Your task to perform on an android device: Go to Maps Image 0: 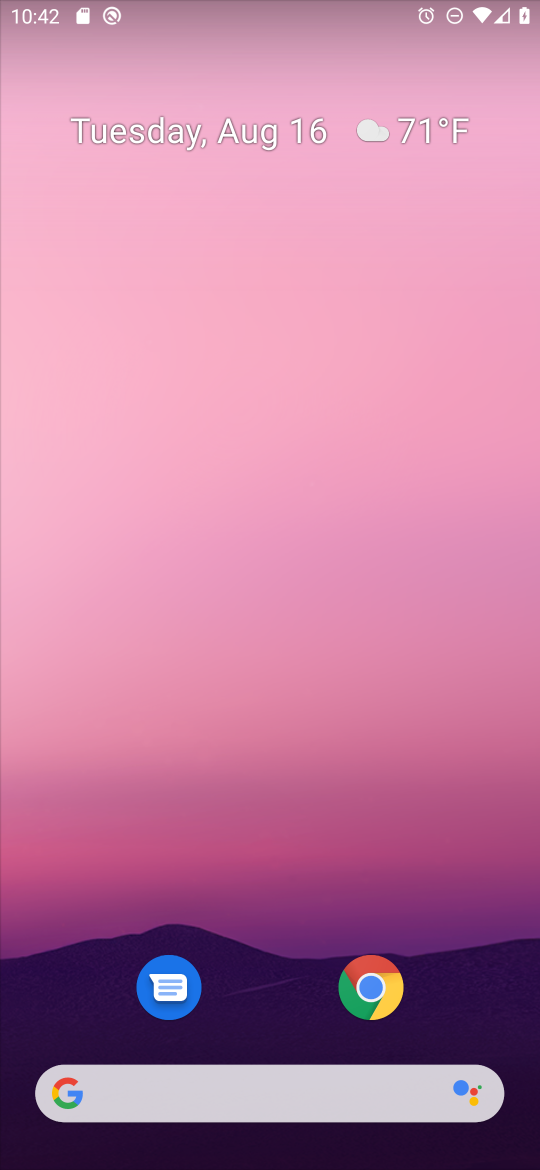
Step 0: drag from (29, 1134) to (213, 309)
Your task to perform on an android device: Go to Maps Image 1: 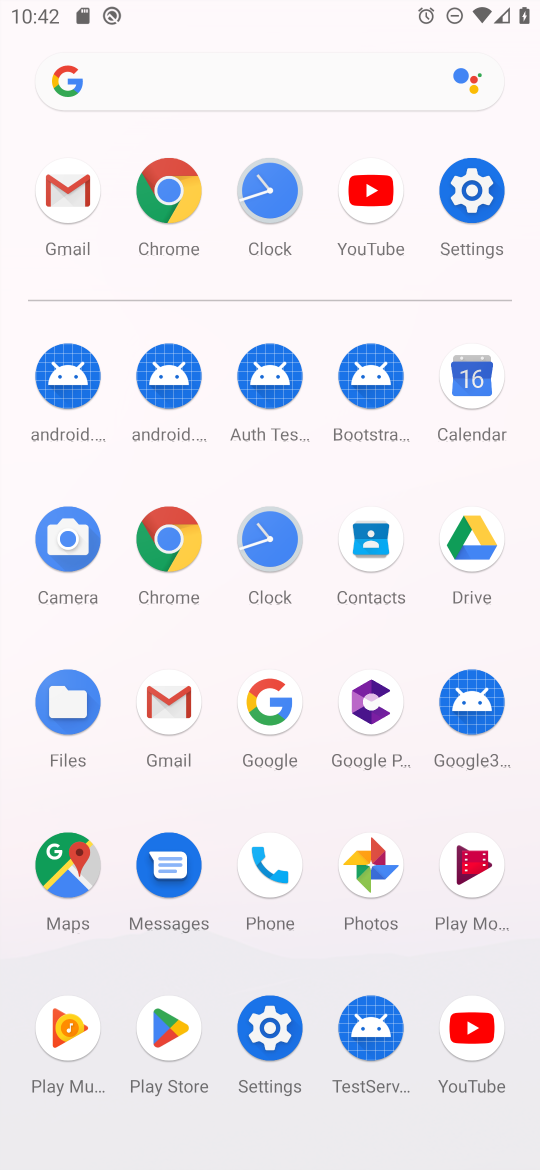
Step 1: click (56, 882)
Your task to perform on an android device: Go to Maps Image 2: 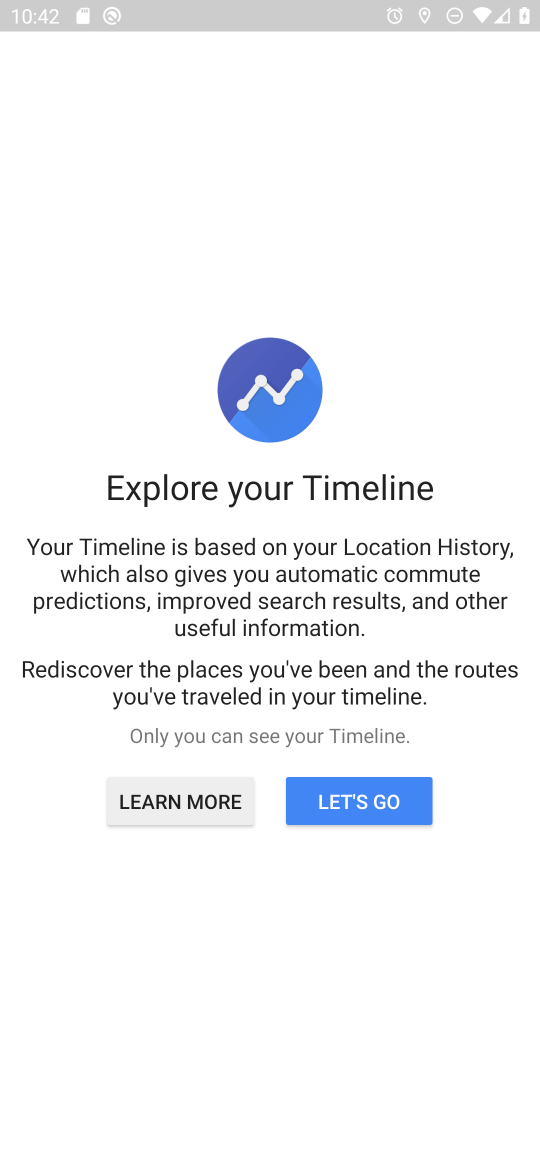
Step 2: click (376, 807)
Your task to perform on an android device: Go to Maps Image 3: 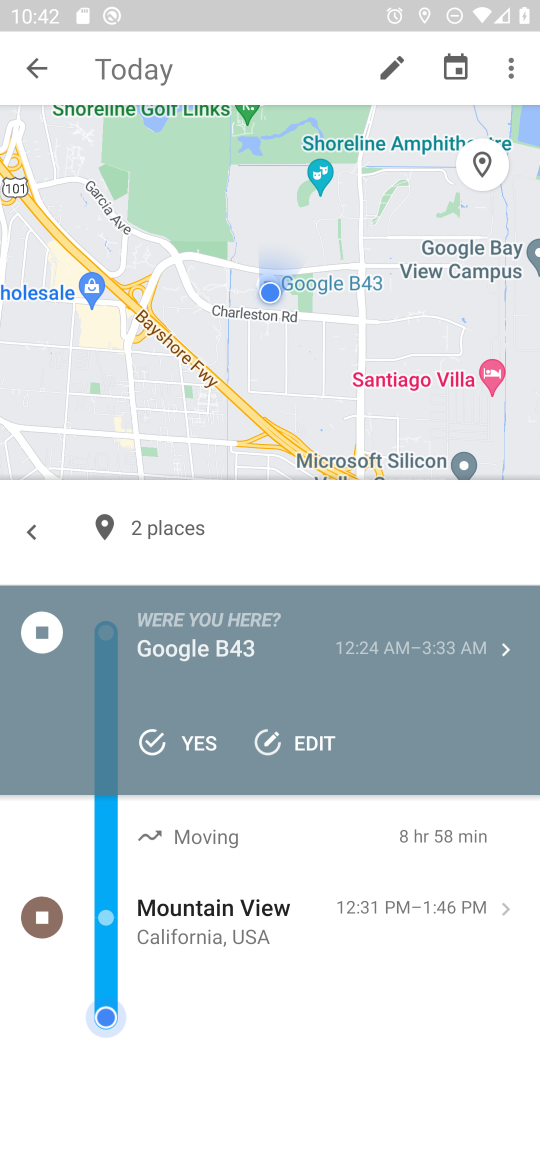
Step 3: task complete